Your task to perform on an android device: Open the Play Movies app and select the watchlist tab. Image 0: 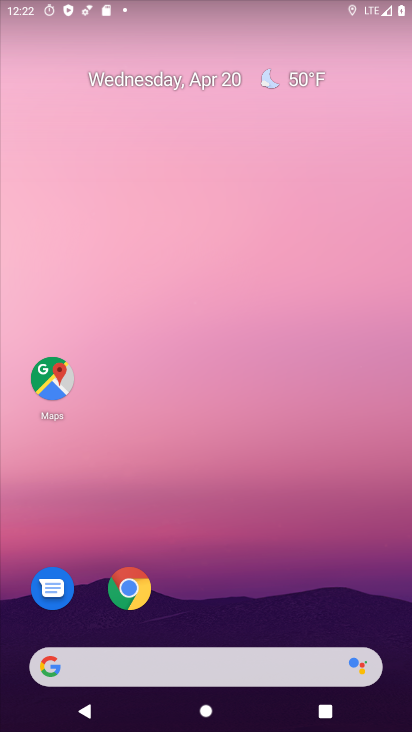
Step 0: drag from (202, 611) to (124, 55)
Your task to perform on an android device: Open the Play Movies app and select the watchlist tab. Image 1: 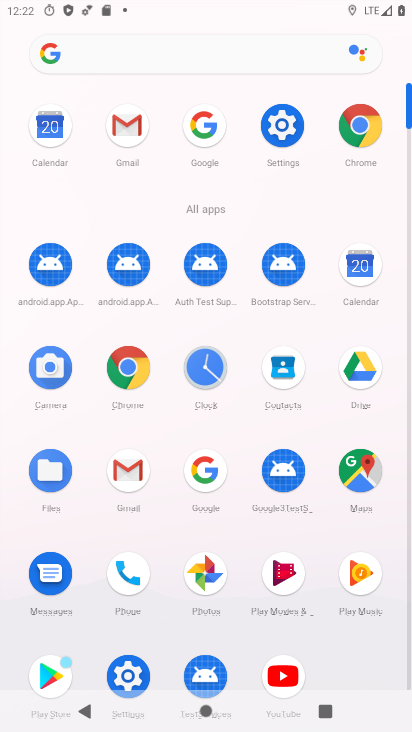
Step 1: click (273, 580)
Your task to perform on an android device: Open the Play Movies app and select the watchlist tab. Image 2: 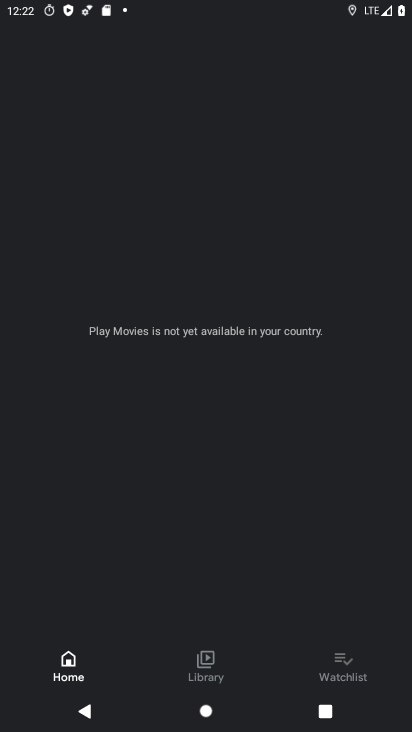
Step 2: click (344, 651)
Your task to perform on an android device: Open the Play Movies app and select the watchlist tab. Image 3: 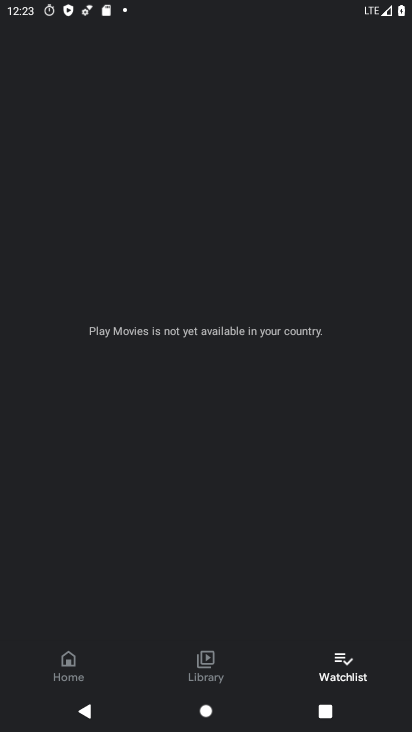
Step 3: task complete